Your task to perform on an android device: see sites visited before in the chrome app Image 0: 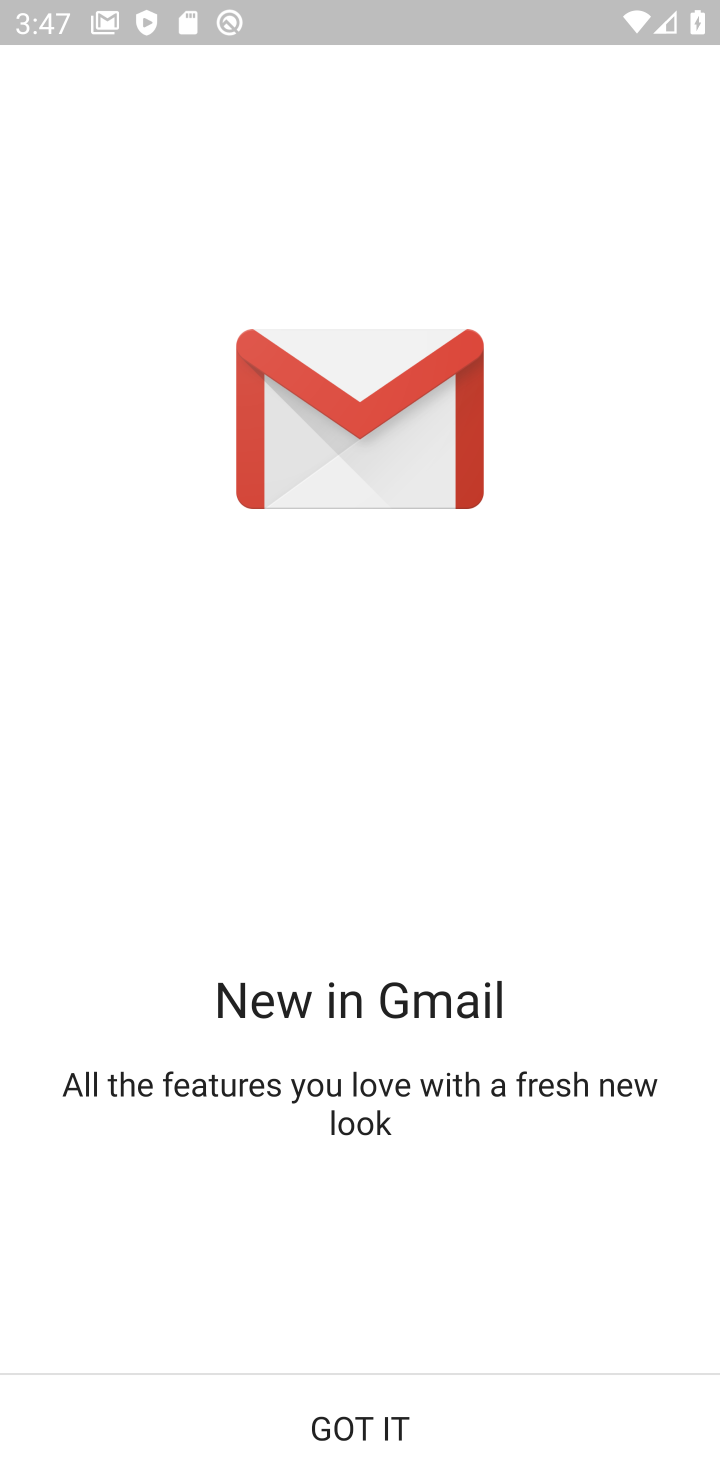
Step 0: press home button
Your task to perform on an android device: see sites visited before in the chrome app Image 1: 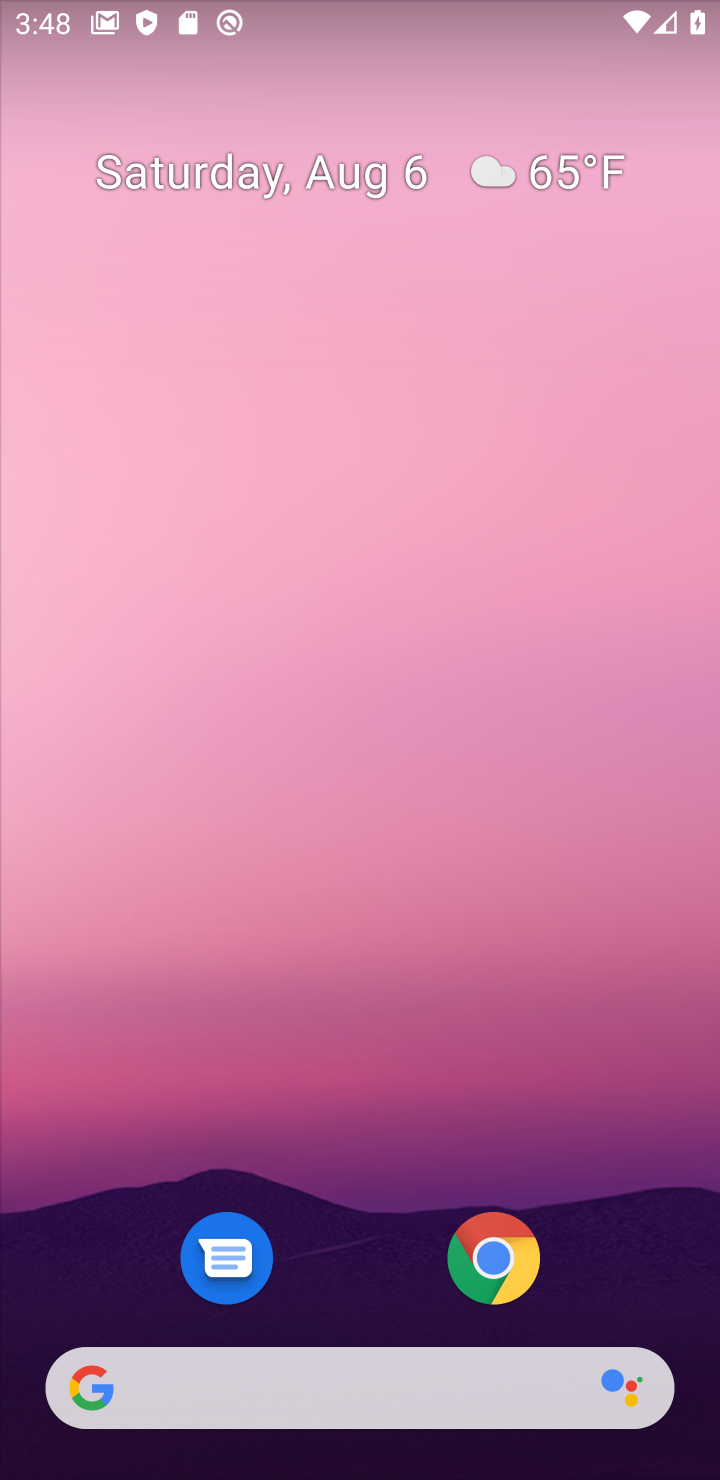
Step 1: drag from (345, 1305) to (341, 21)
Your task to perform on an android device: see sites visited before in the chrome app Image 2: 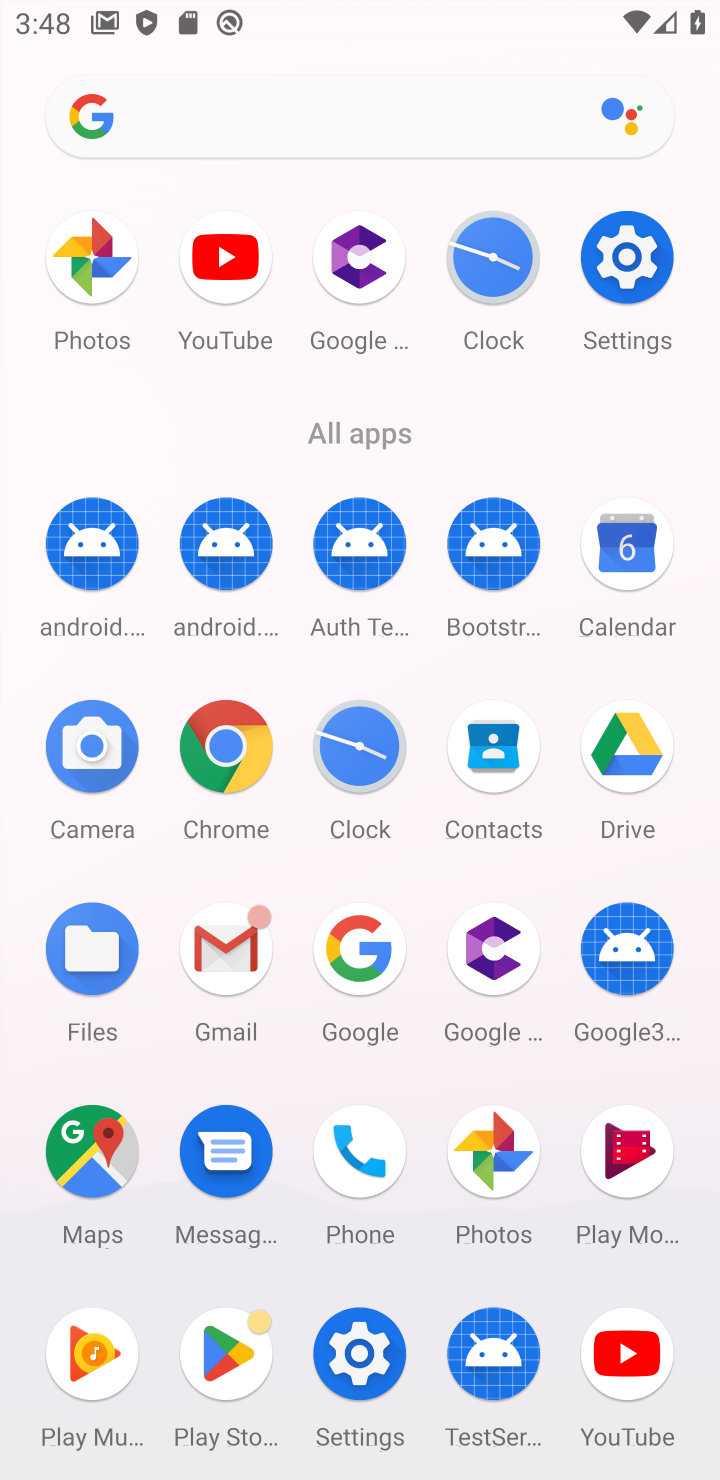
Step 2: click (238, 753)
Your task to perform on an android device: see sites visited before in the chrome app Image 3: 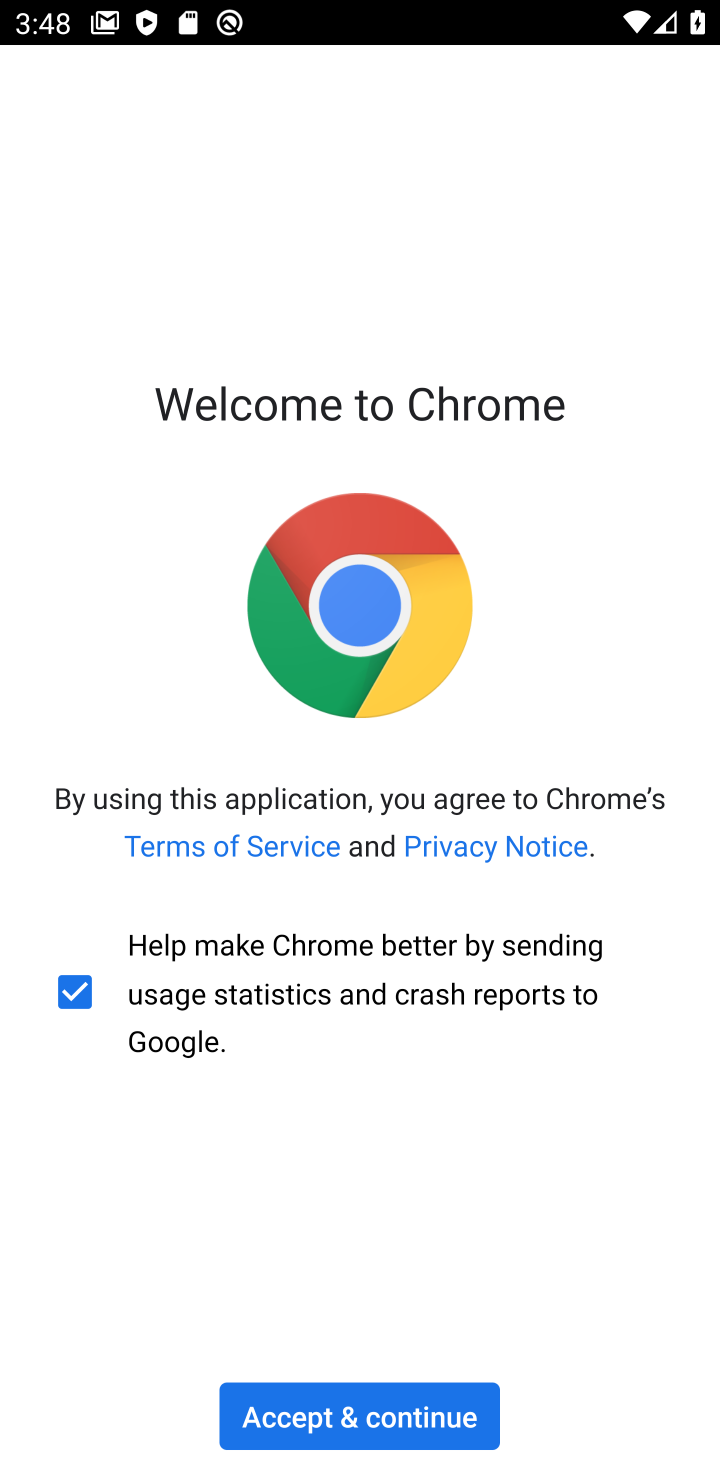
Step 3: click (350, 1410)
Your task to perform on an android device: see sites visited before in the chrome app Image 4: 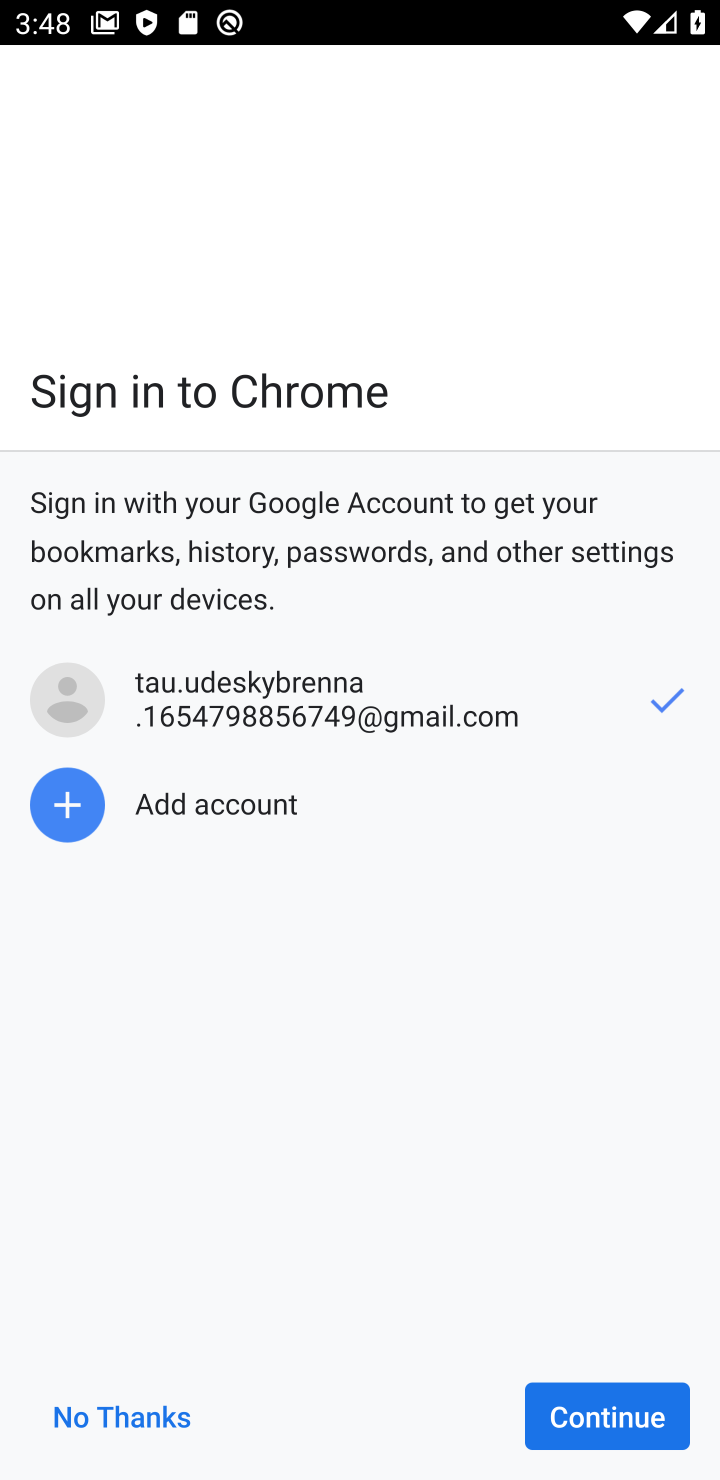
Step 4: click (596, 1432)
Your task to perform on an android device: see sites visited before in the chrome app Image 5: 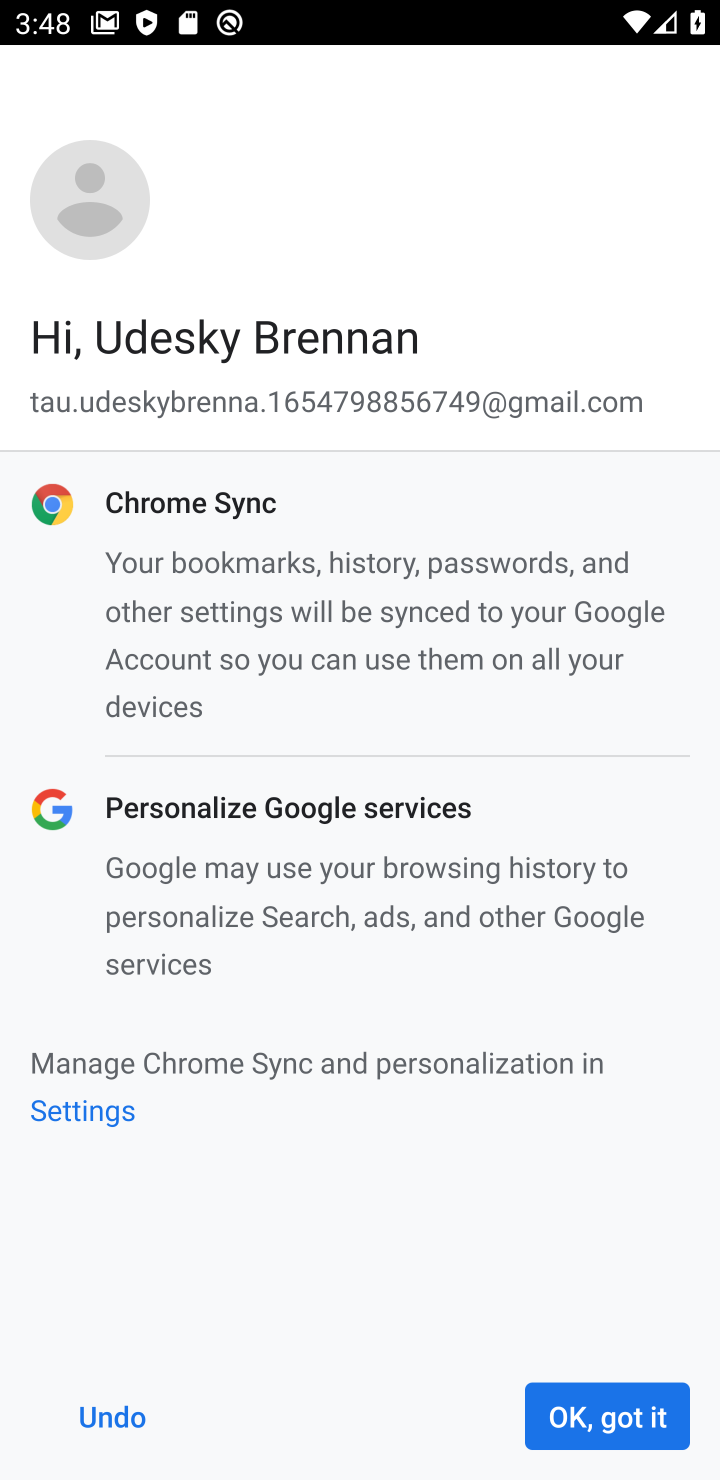
Step 5: click (612, 1402)
Your task to perform on an android device: see sites visited before in the chrome app Image 6: 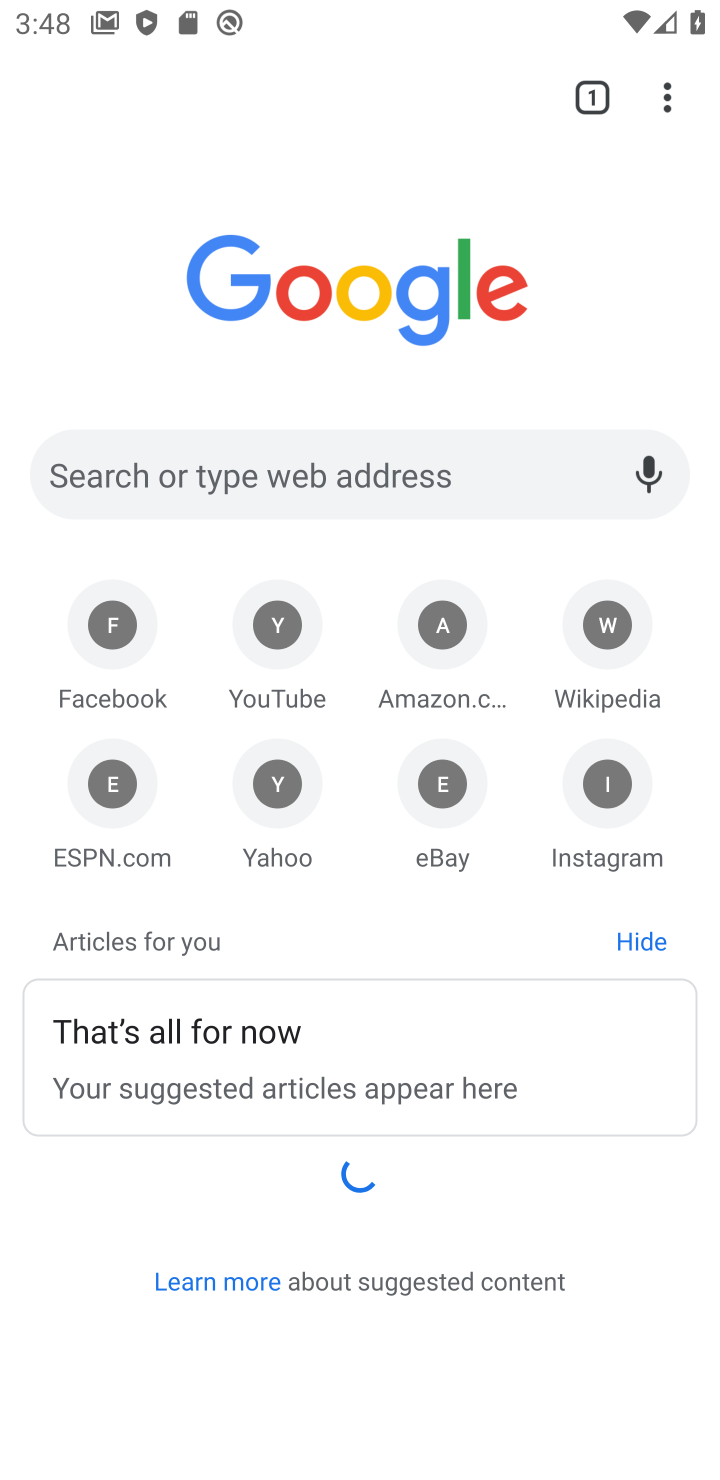
Step 6: click (666, 82)
Your task to perform on an android device: see sites visited before in the chrome app Image 7: 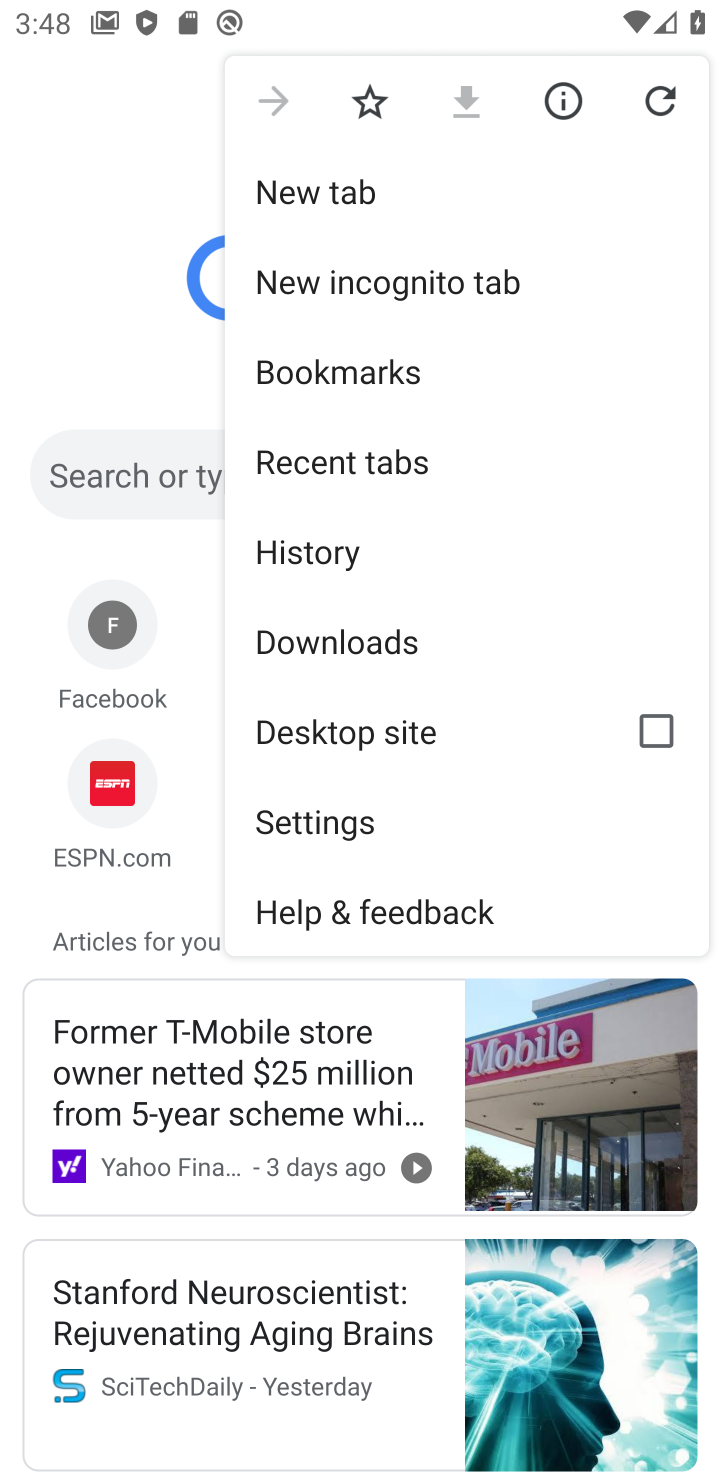
Step 7: click (311, 559)
Your task to perform on an android device: see sites visited before in the chrome app Image 8: 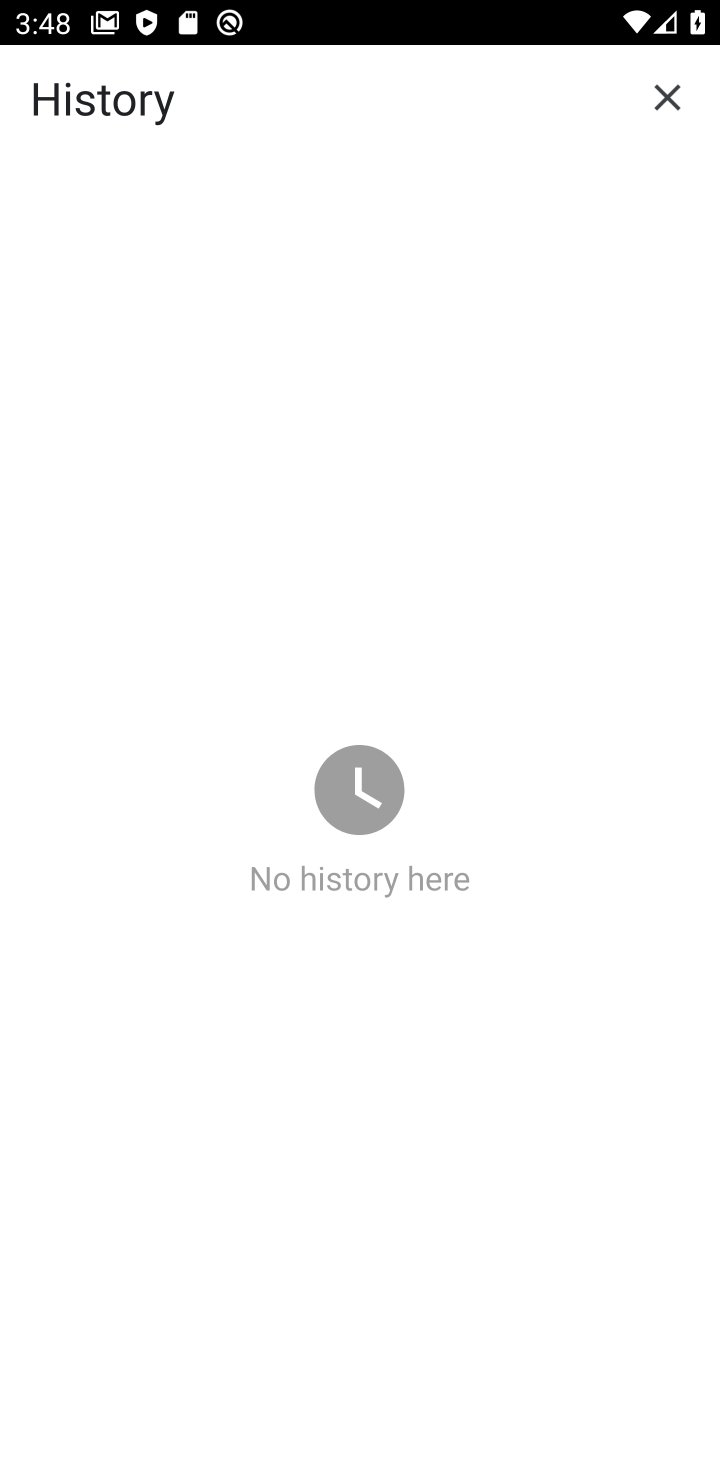
Step 8: task complete